Your task to perform on an android device: turn on priority inbox in the gmail app Image 0: 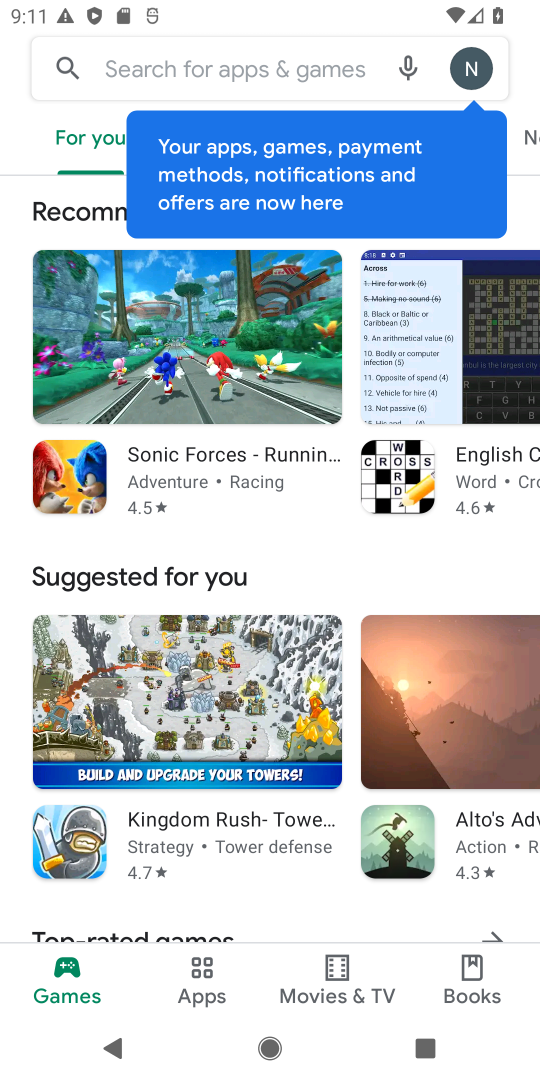
Step 0: press home button
Your task to perform on an android device: turn on priority inbox in the gmail app Image 1: 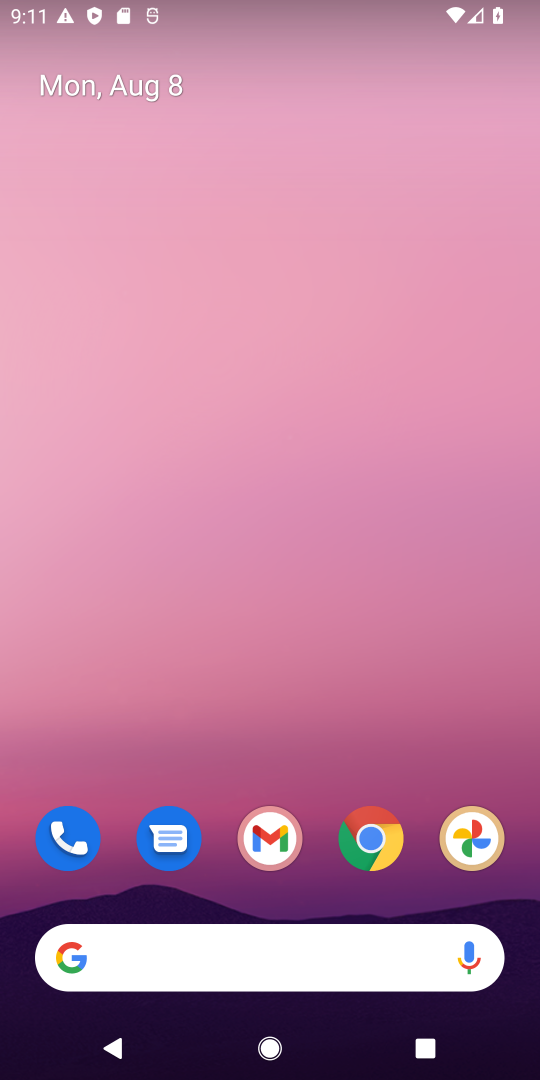
Step 1: drag from (215, 896) to (333, 98)
Your task to perform on an android device: turn on priority inbox in the gmail app Image 2: 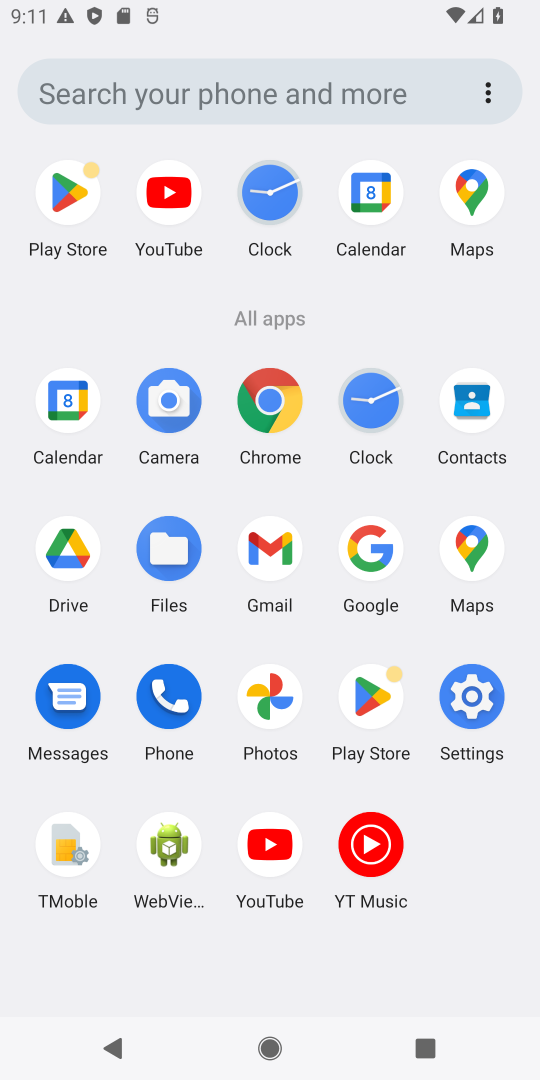
Step 2: click (279, 565)
Your task to perform on an android device: turn on priority inbox in the gmail app Image 3: 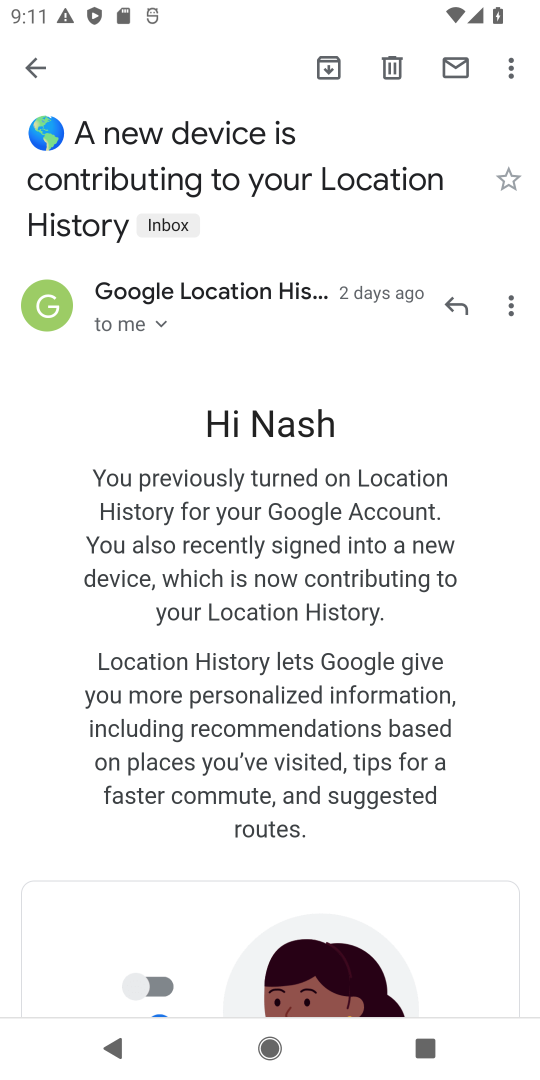
Step 3: click (35, 63)
Your task to perform on an android device: turn on priority inbox in the gmail app Image 4: 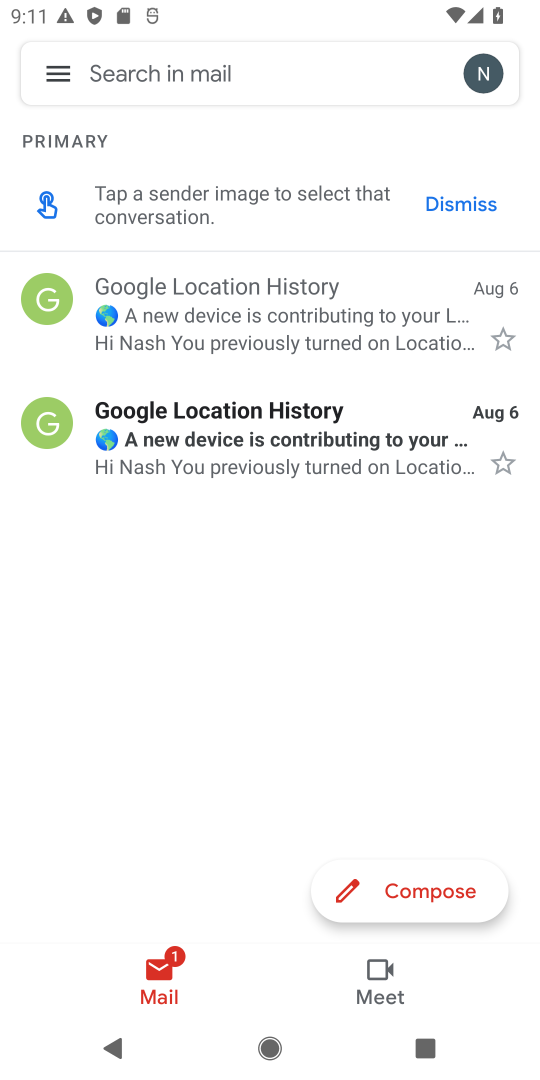
Step 4: click (67, 66)
Your task to perform on an android device: turn on priority inbox in the gmail app Image 5: 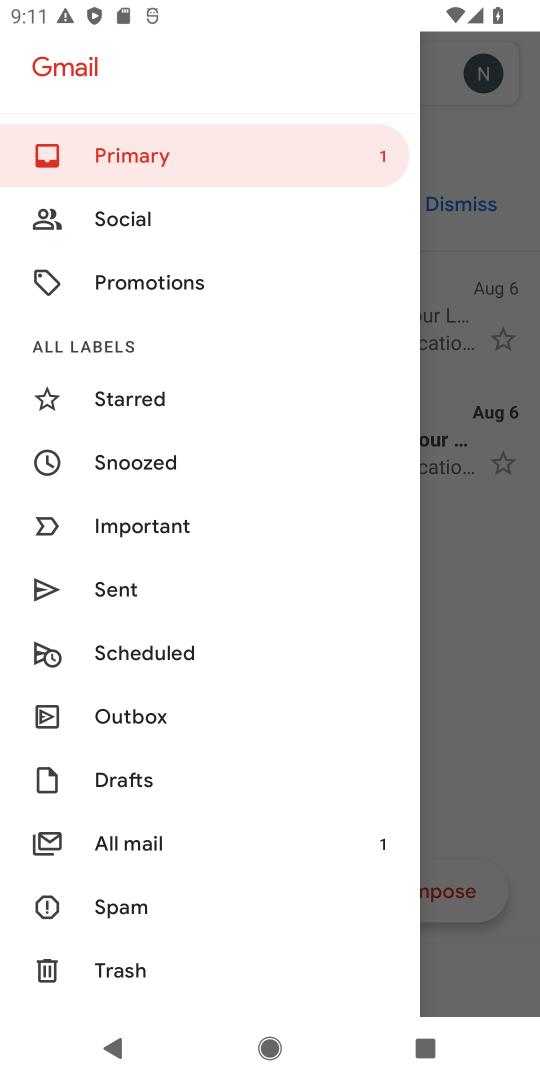
Step 5: drag from (245, 911) to (264, 193)
Your task to perform on an android device: turn on priority inbox in the gmail app Image 6: 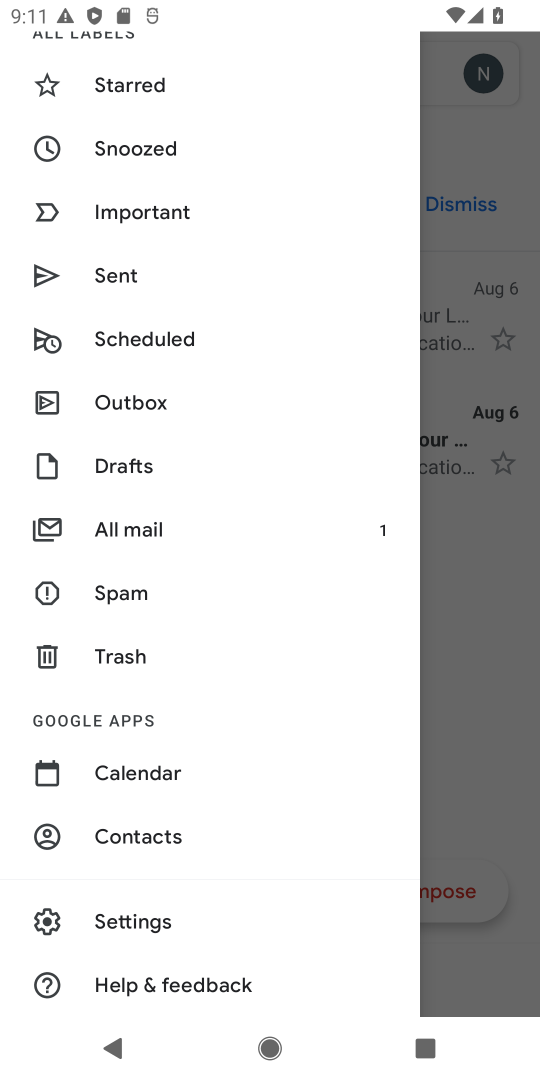
Step 6: click (122, 914)
Your task to perform on an android device: turn on priority inbox in the gmail app Image 7: 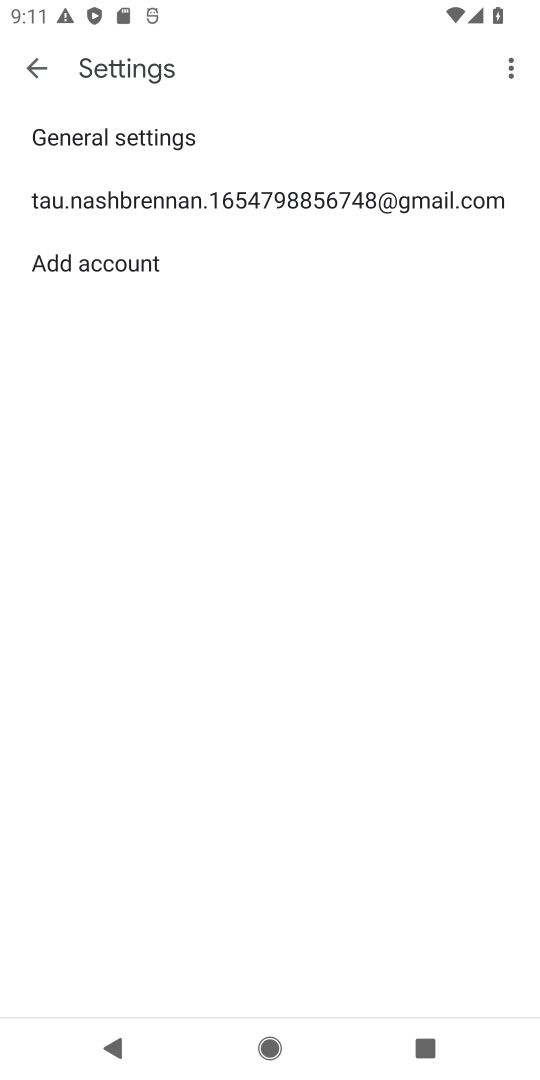
Step 7: click (231, 196)
Your task to perform on an android device: turn on priority inbox in the gmail app Image 8: 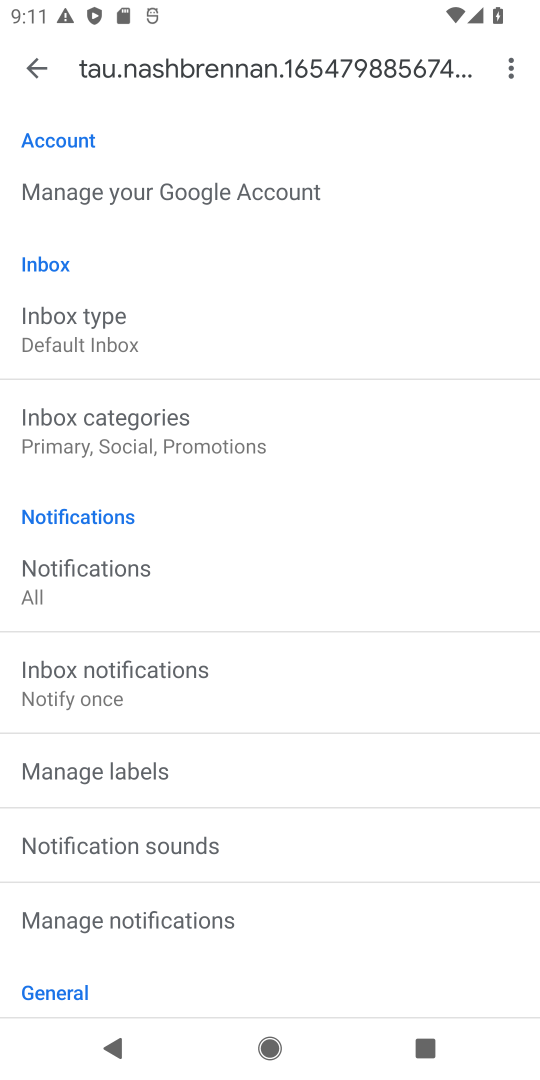
Step 8: click (68, 323)
Your task to perform on an android device: turn on priority inbox in the gmail app Image 9: 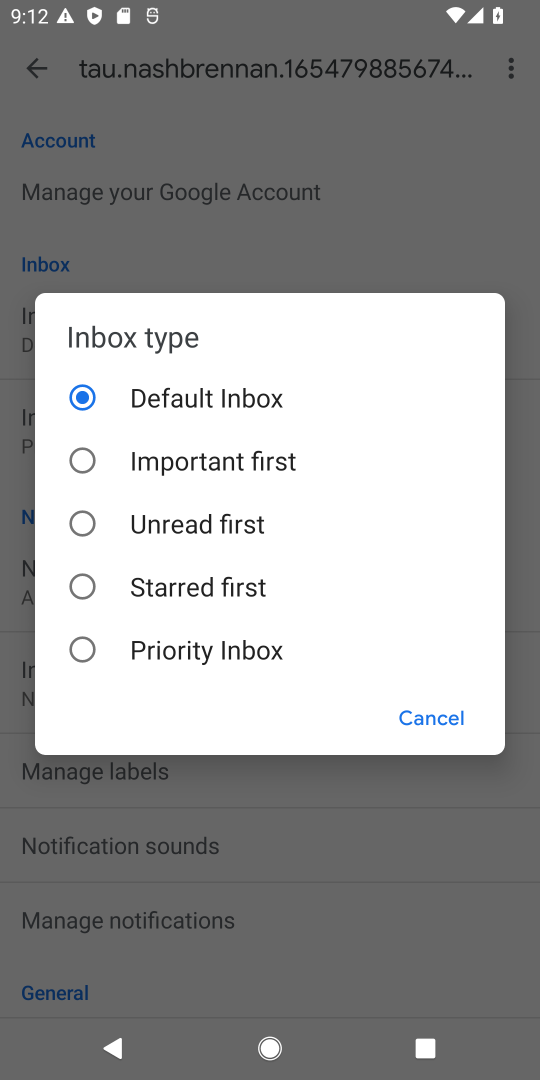
Step 9: click (82, 648)
Your task to perform on an android device: turn on priority inbox in the gmail app Image 10: 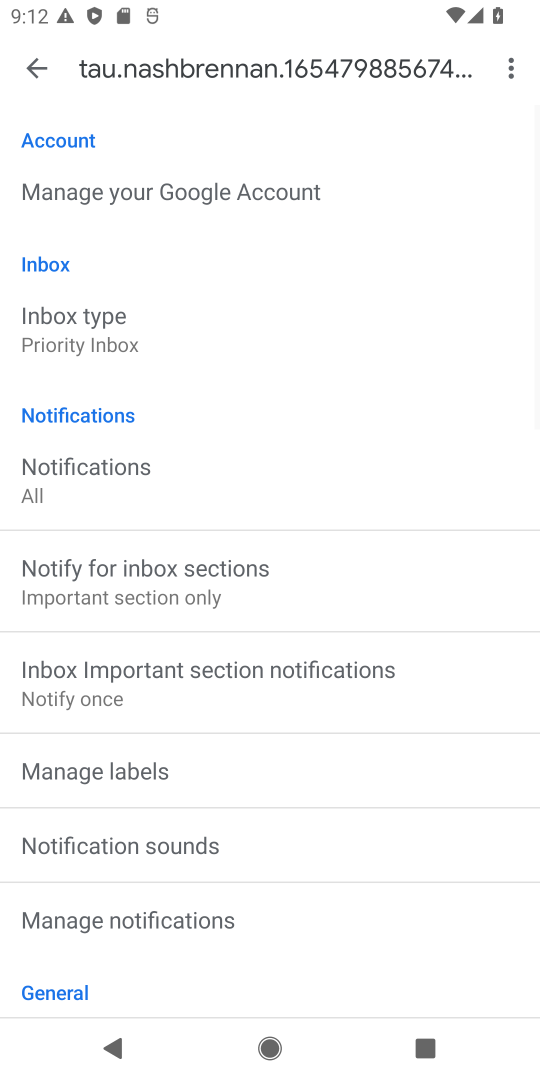
Step 10: task complete